Your task to perform on an android device: turn off improve location accuracy Image 0: 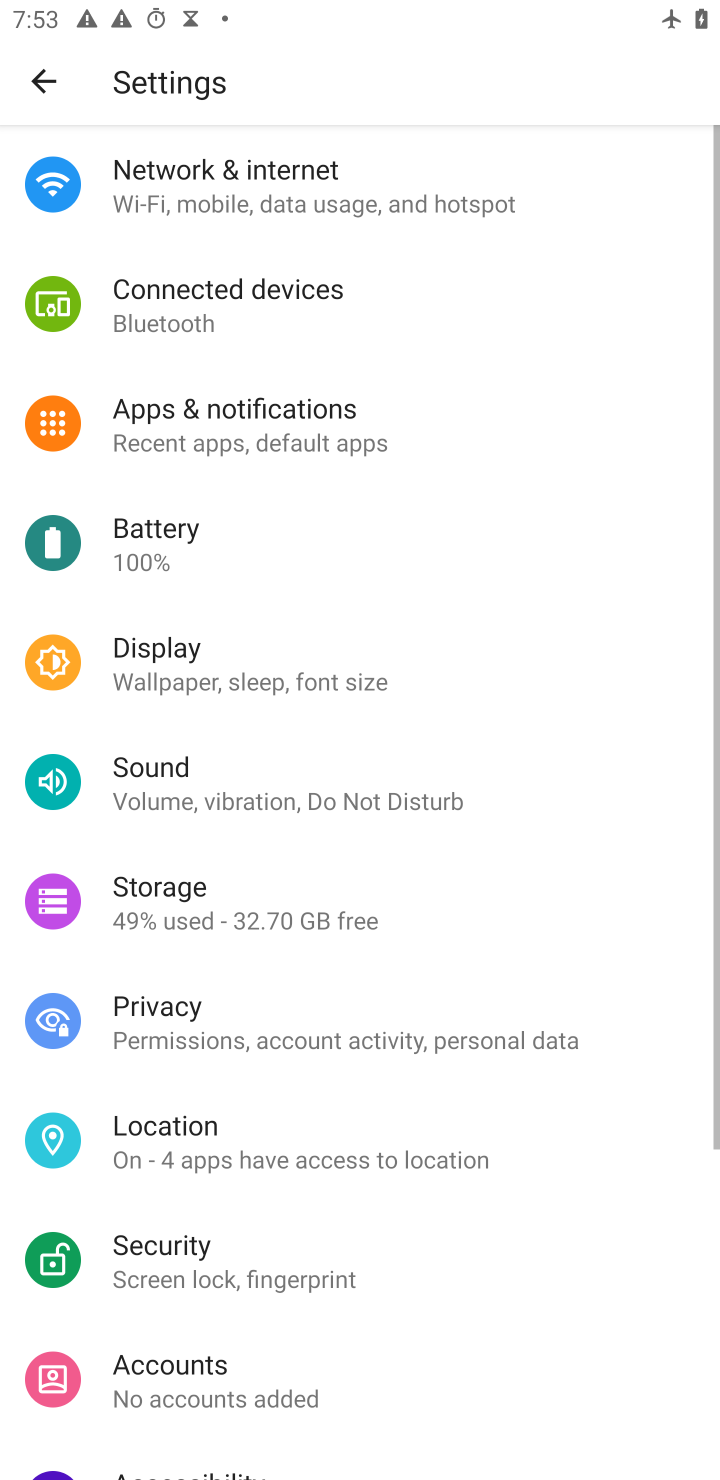
Step 0: press home button
Your task to perform on an android device: turn off improve location accuracy Image 1: 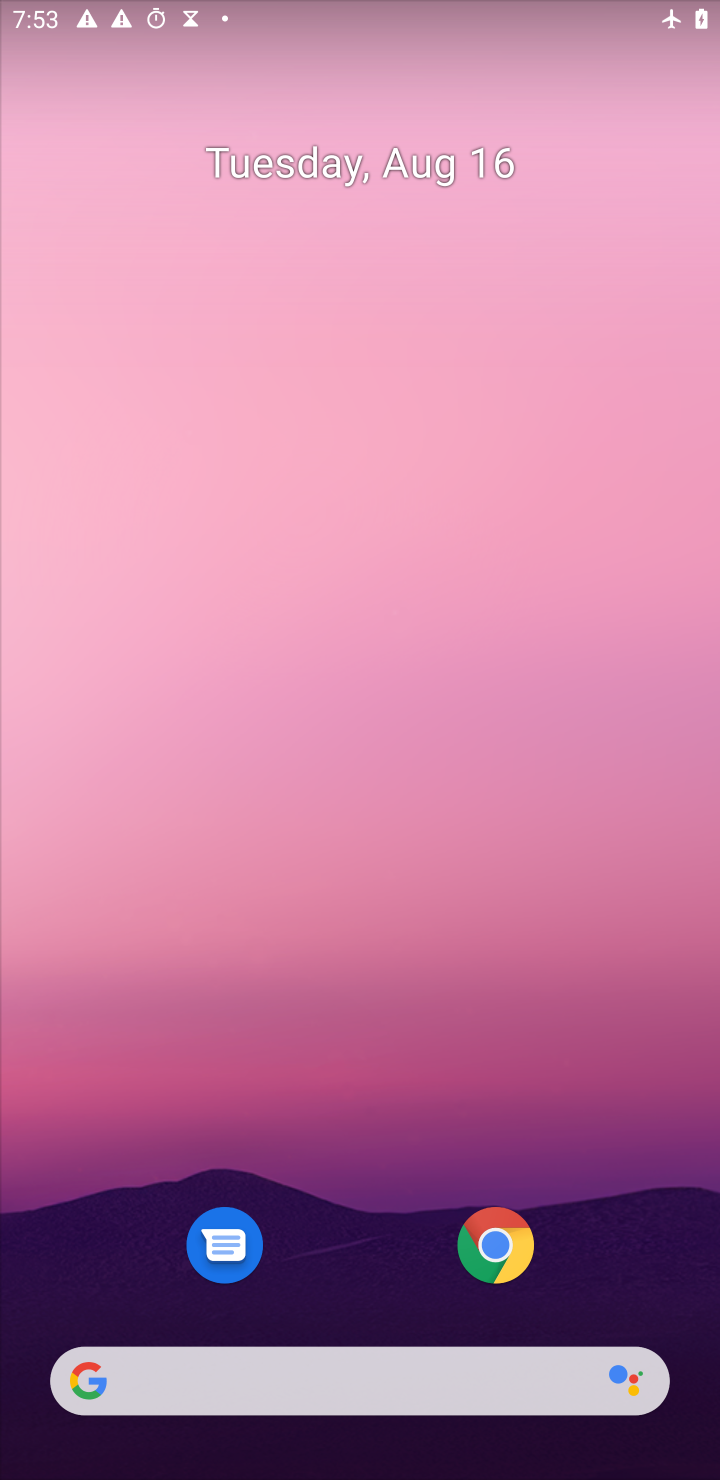
Step 1: drag from (400, 16) to (488, 15)
Your task to perform on an android device: turn off improve location accuracy Image 2: 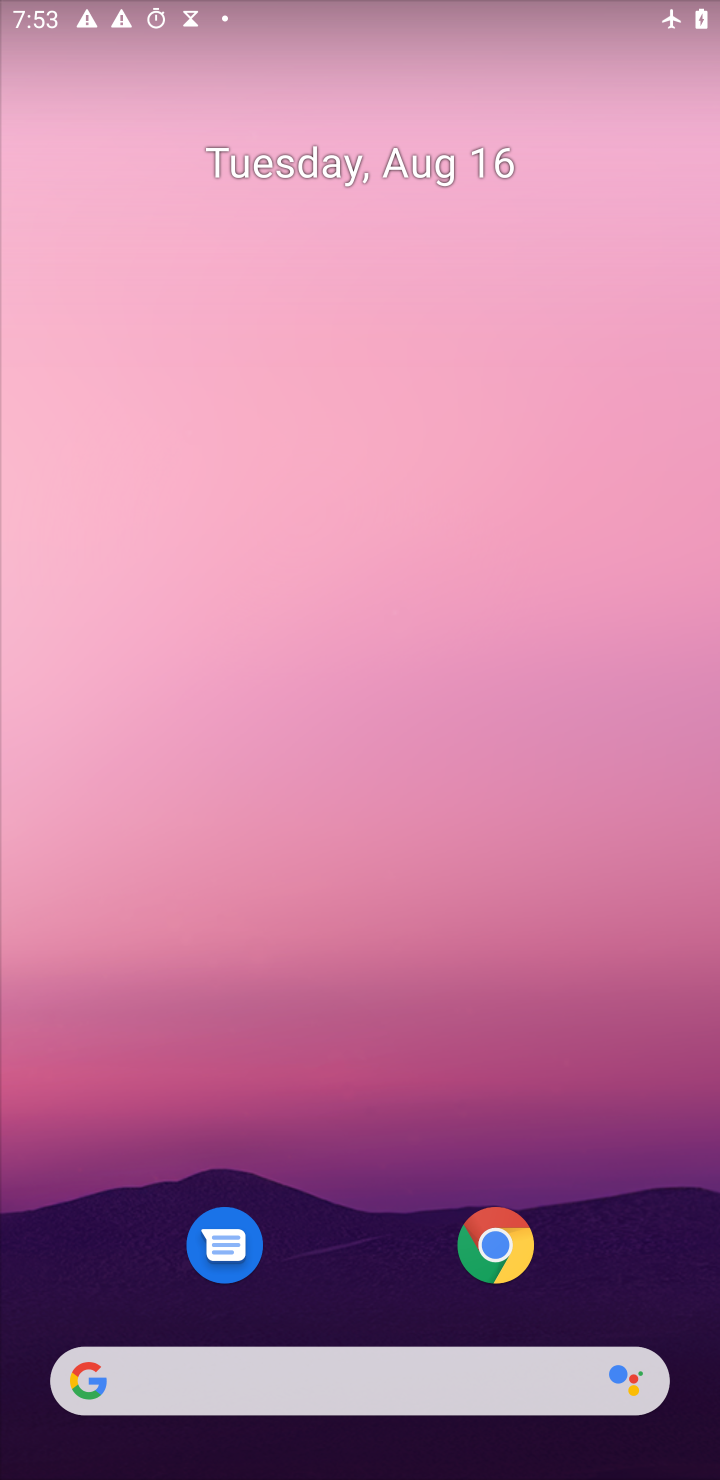
Step 2: drag from (370, 1192) to (211, 38)
Your task to perform on an android device: turn off improve location accuracy Image 3: 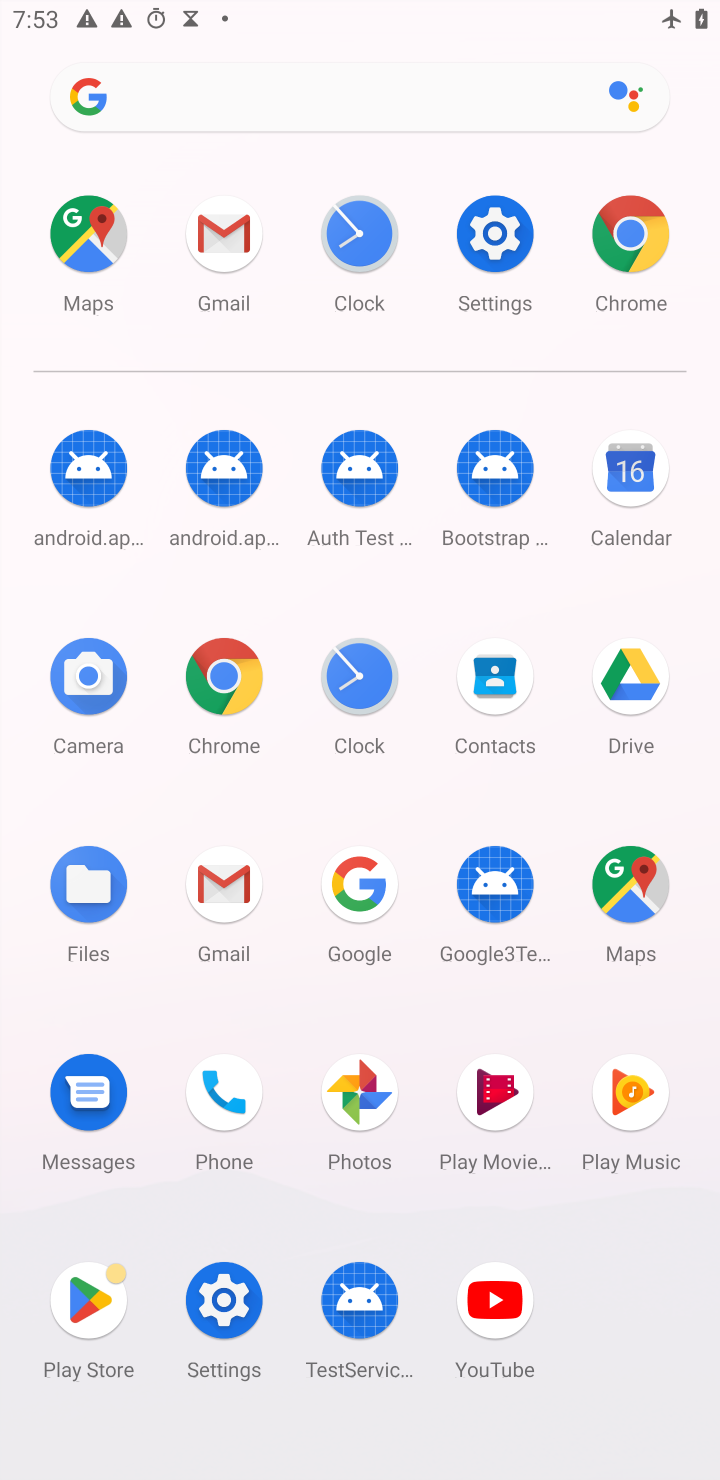
Step 3: click (489, 245)
Your task to perform on an android device: turn off improve location accuracy Image 4: 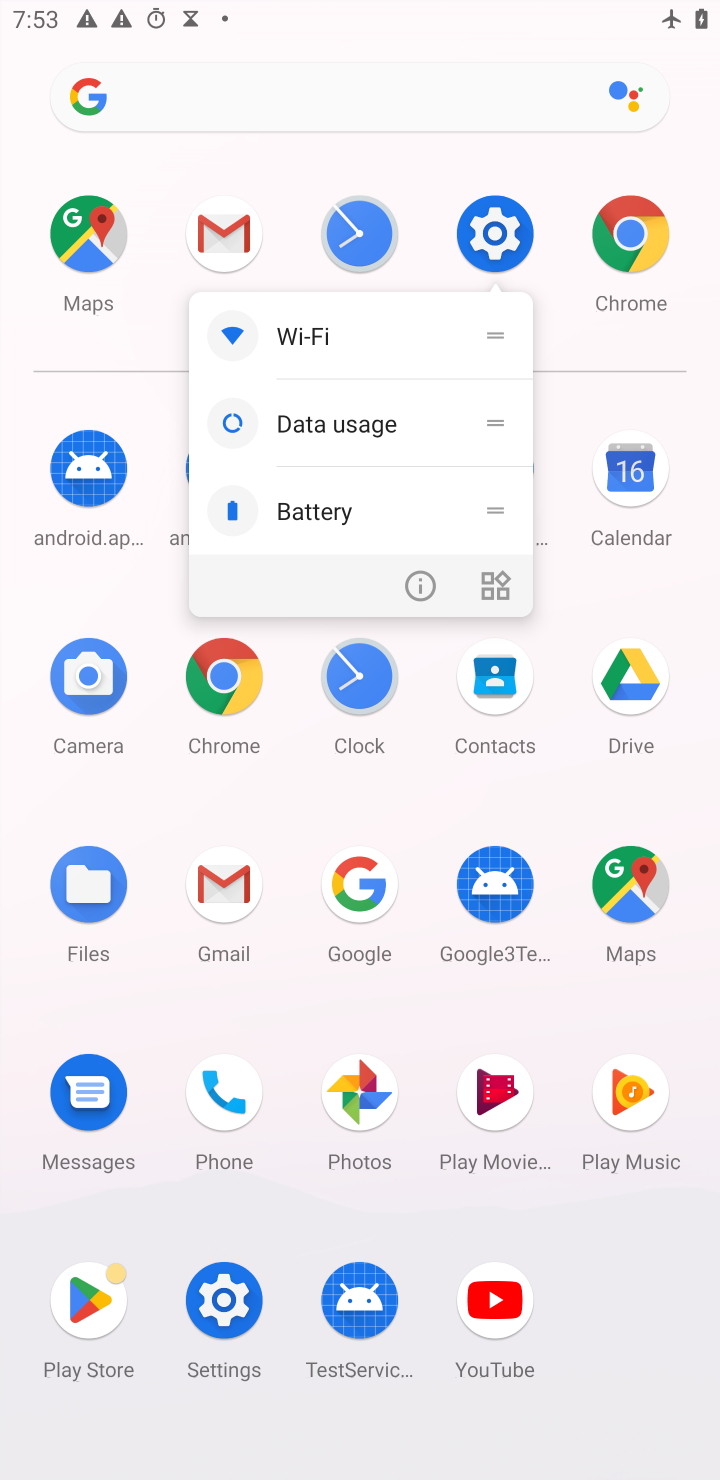
Step 4: click (499, 232)
Your task to perform on an android device: turn off improve location accuracy Image 5: 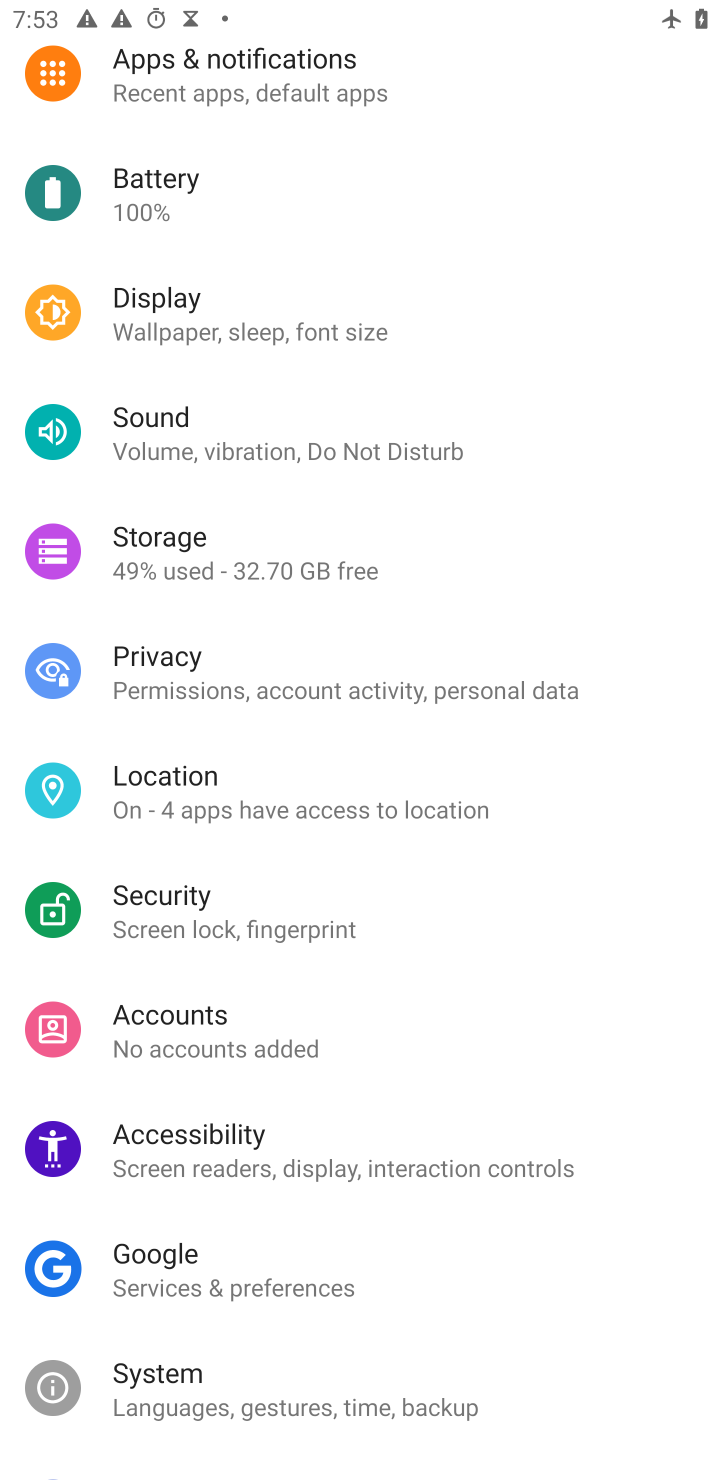
Step 5: click (174, 797)
Your task to perform on an android device: turn off improve location accuracy Image 6: 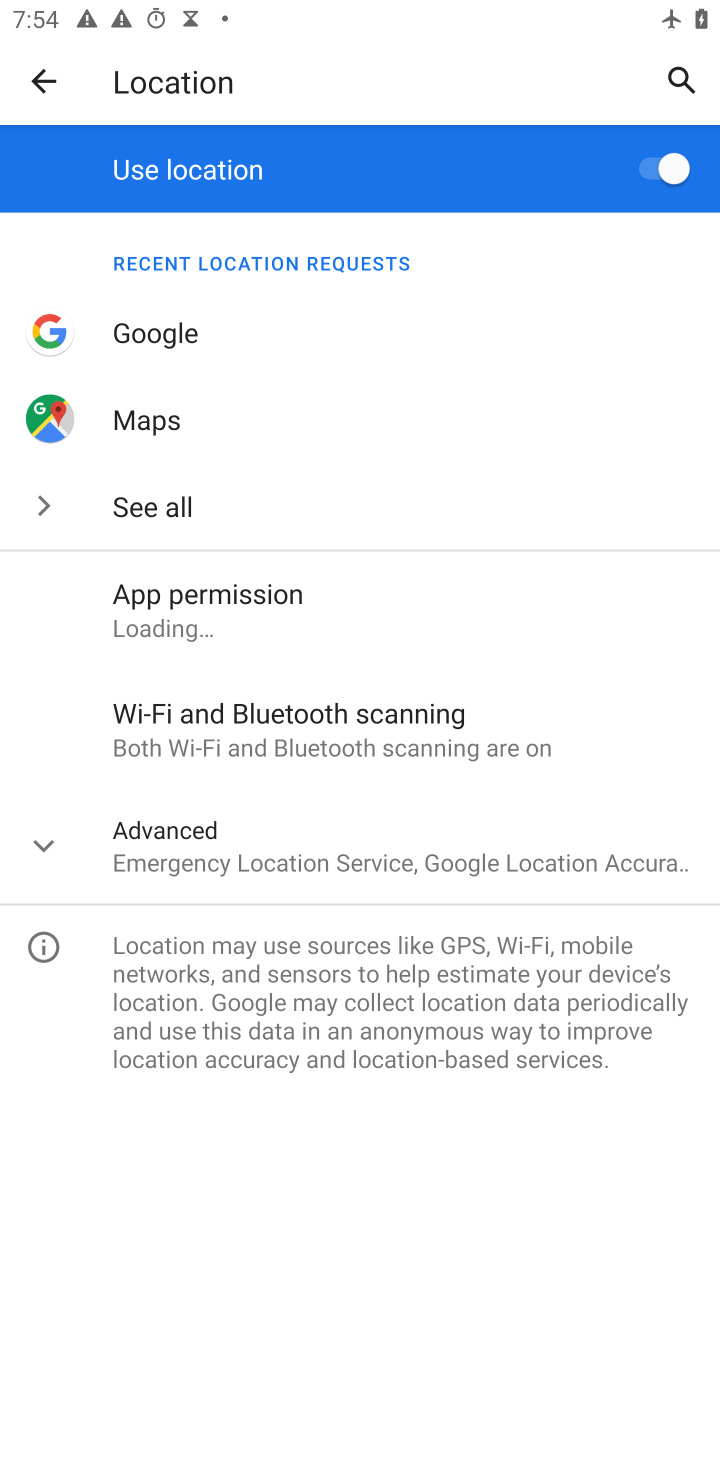
Step 6: click (47, 846)
Your task to perform on an android device: turn off improve location accuracy Image 7: 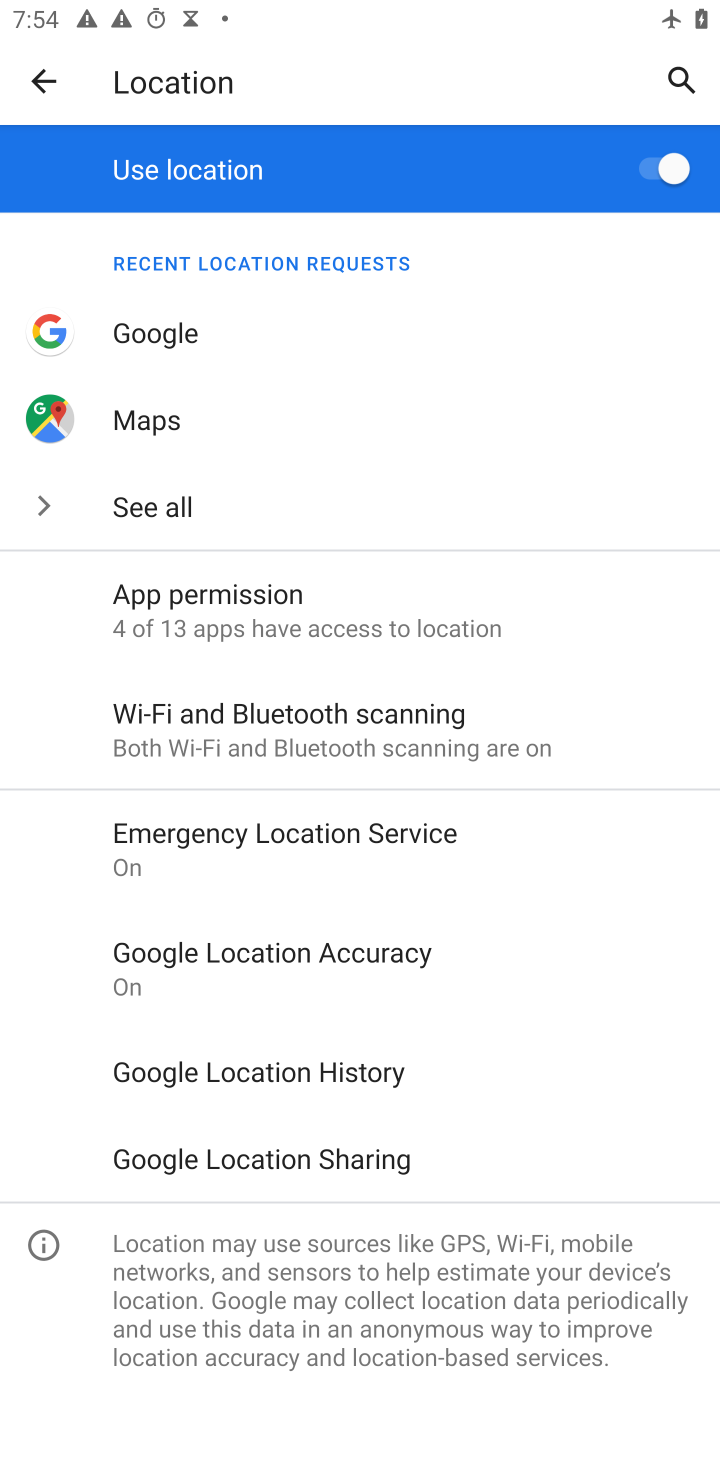
Step 7: click (321, 963)
Your task to perform on an android device: turn off improve location accuracy Image 8: 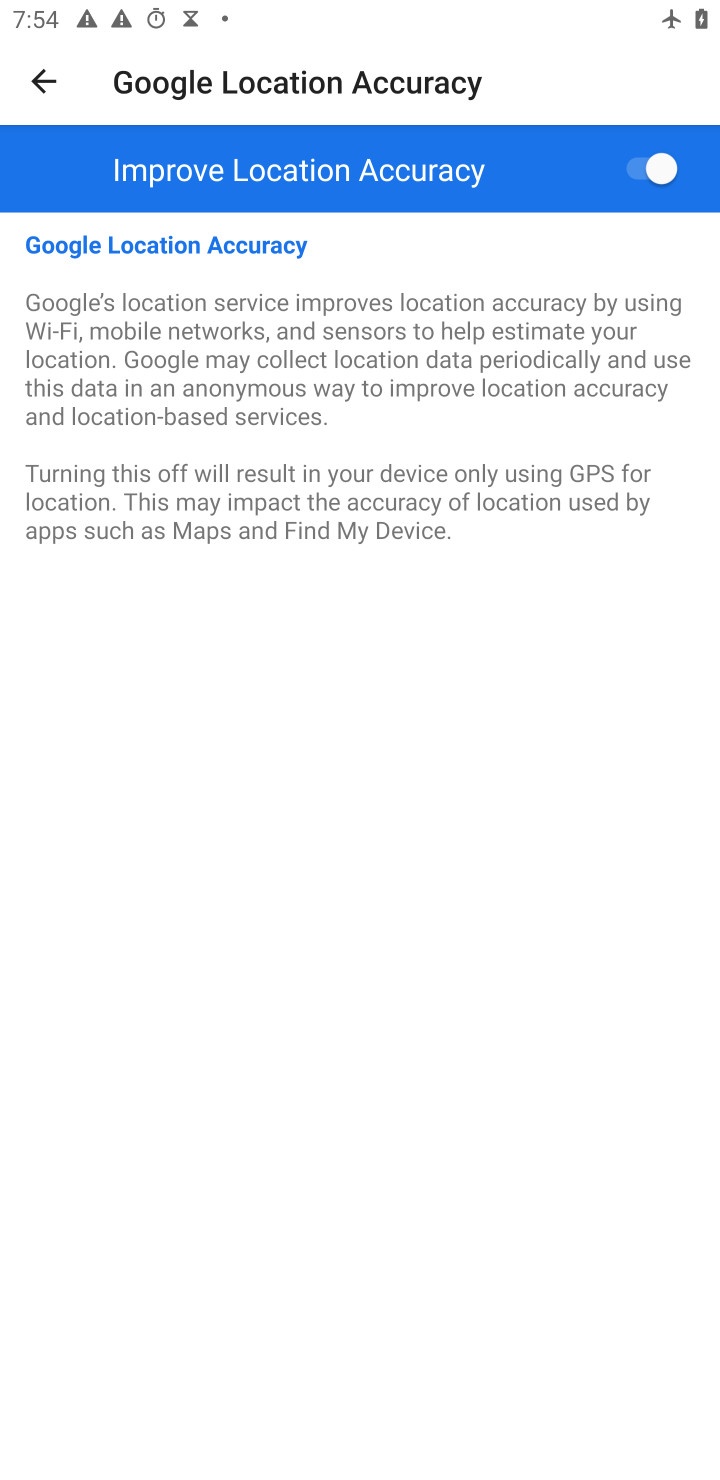
Step 8: click (658, 177)
Your task to perform on an android device: turn off improve location accuracy Image 9: 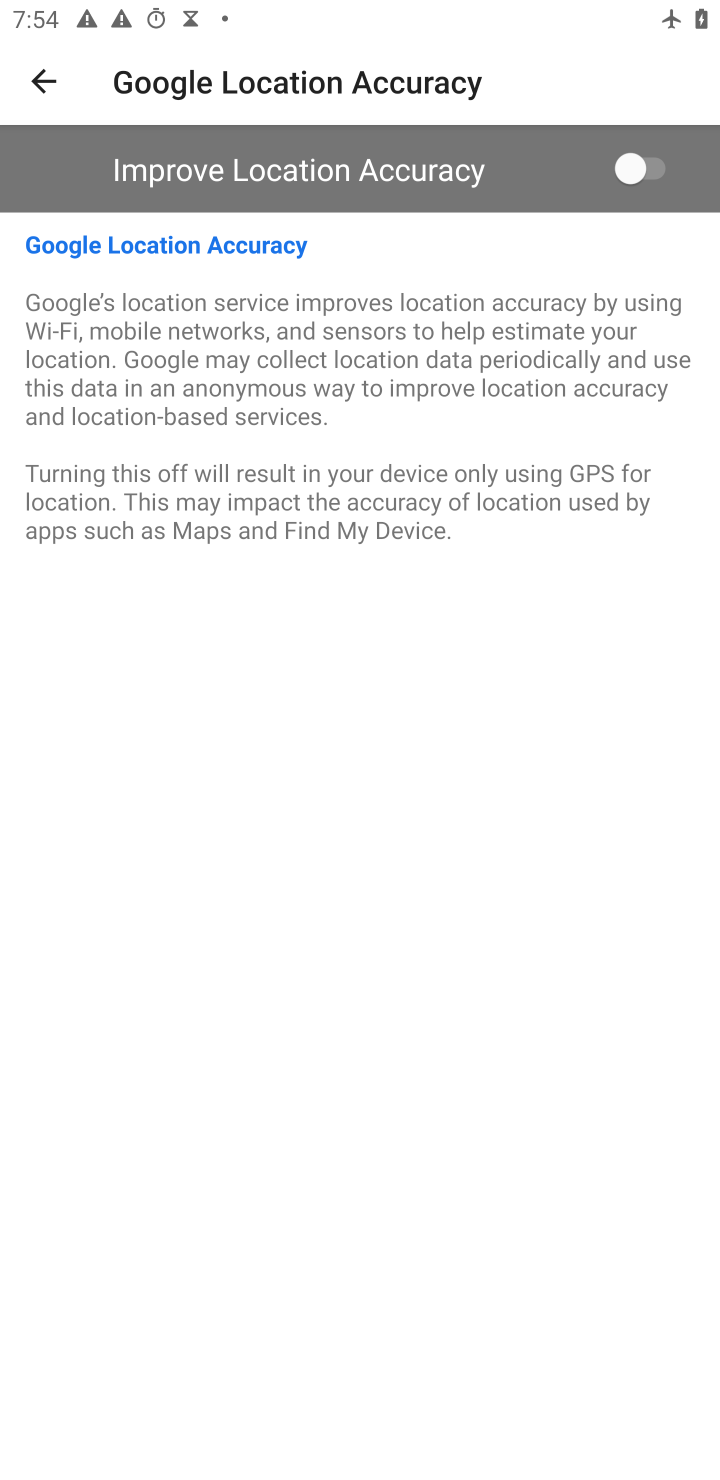
Step 9: task complete